Your task to perform on an android device: create a new album in the google photos Image 0: 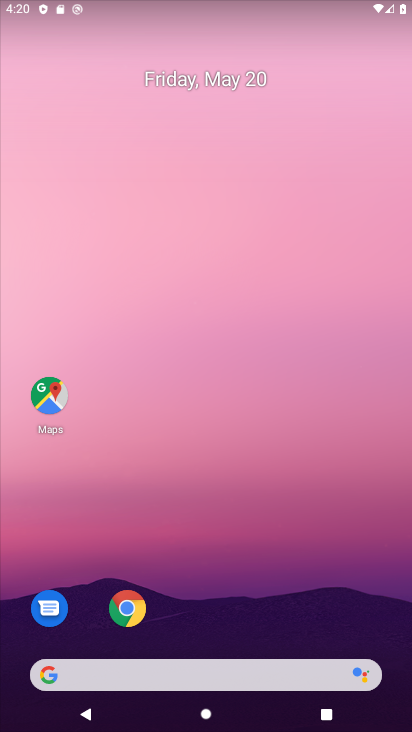
Step 0: drag from (215, 640) to (374, 36)
Your task to perform on an android device: create a new album in the google photos Image 1: 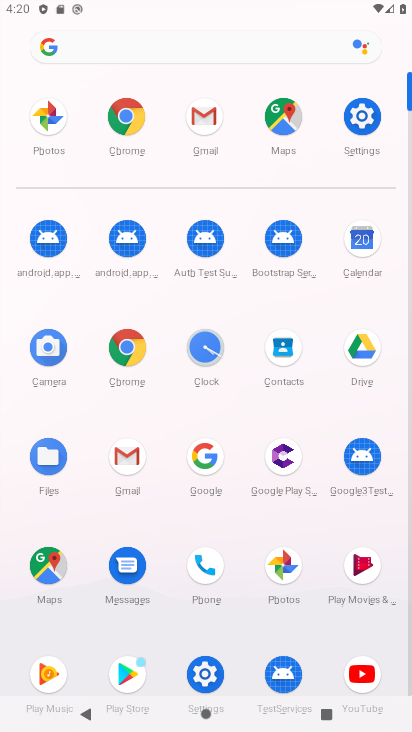
Step 1: click (280, 567)
Your task to perform on an android device: create a new album in the google photos Image 2: 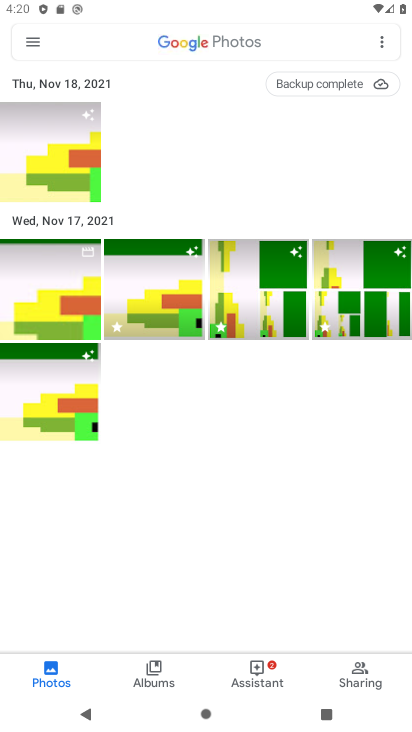
Step 2: drag from (53, 182) to (165, 288)
Your task to perform on an android device: create a new album in the google photos Image 3: 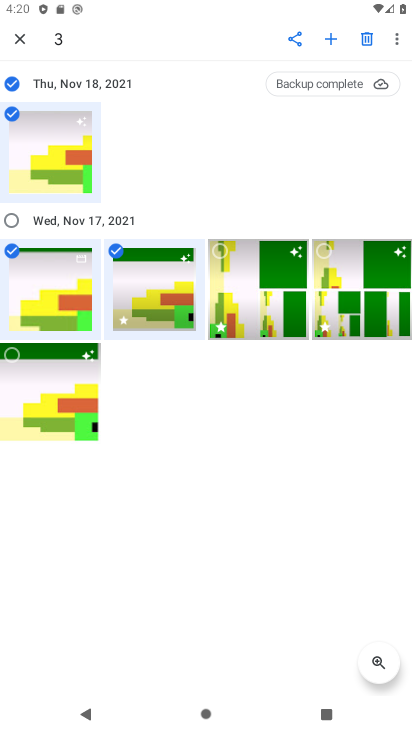
Step 3: click (323, 31)
Your task to perform on an android device: create a new album in the google photos Image 4: 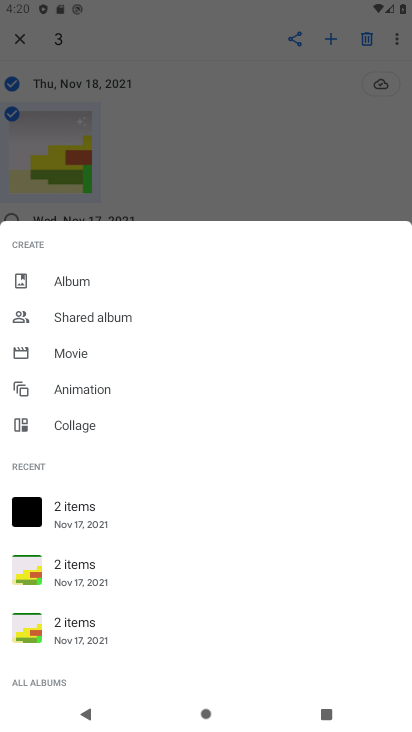
Step 4: click (76, 292)
Your task to perform on an android device: create a new album in the google photos Image 5: 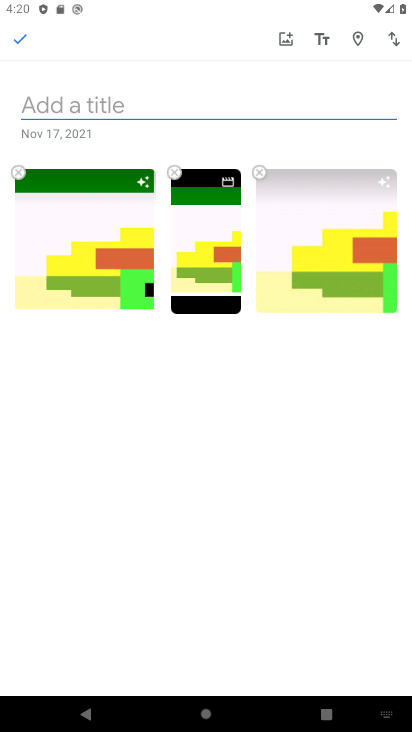
Step 5: type "hn"
Your task to perform on an android device: create a new album in the google photos Image 6: 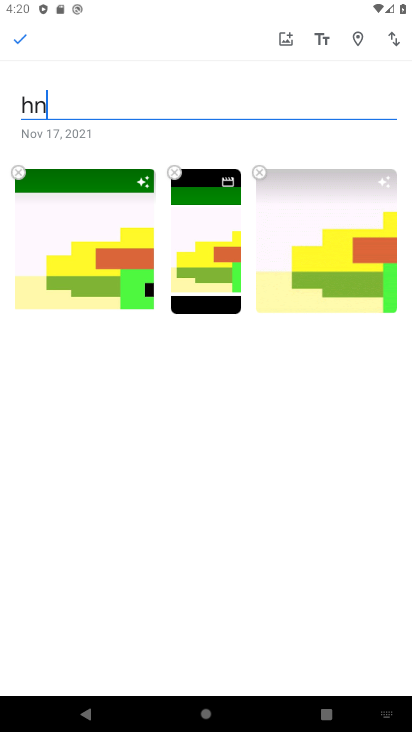
Step 6: type ""
Your task to perform on an android device: create a new album in the google photos Image 7: 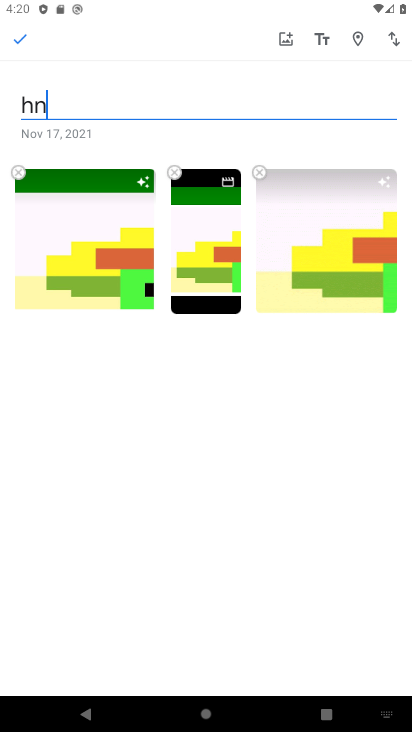
Step 7: click (14, 46)
Your task to perform on an android device: create a new album in the google photos Image 8: 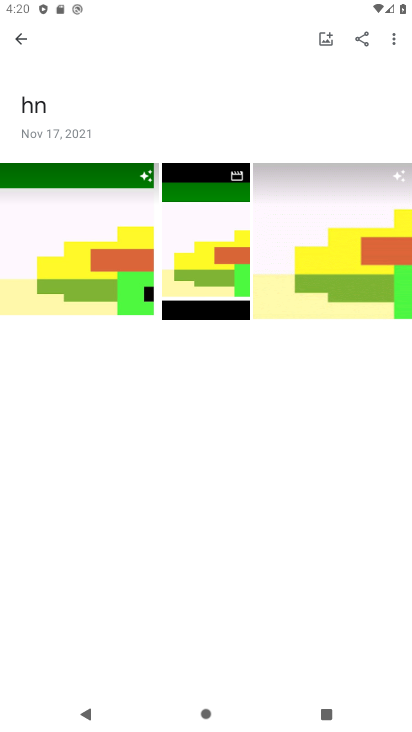
Step 8: task complete